Your task to perform on an android device: open the mobile data screen to see how much data has been used Image 0: 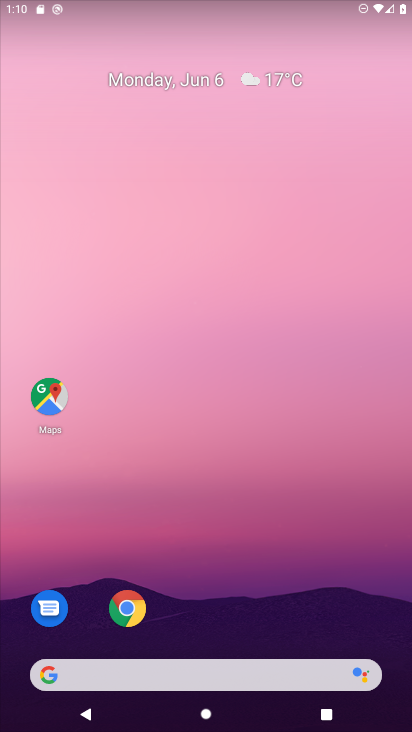
Step 0: drag from (245, 588) to (188, 113)
Your task to perform on an android device: open the mobile data screen to see how much data has been used Image 1: 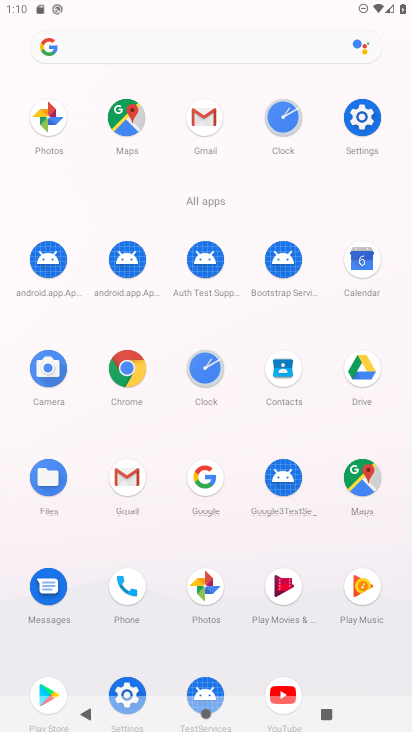
Step 1: click (366, 132)
Your task to perform on an android device: open the mobile data screen to see how much data has been used Image 2: 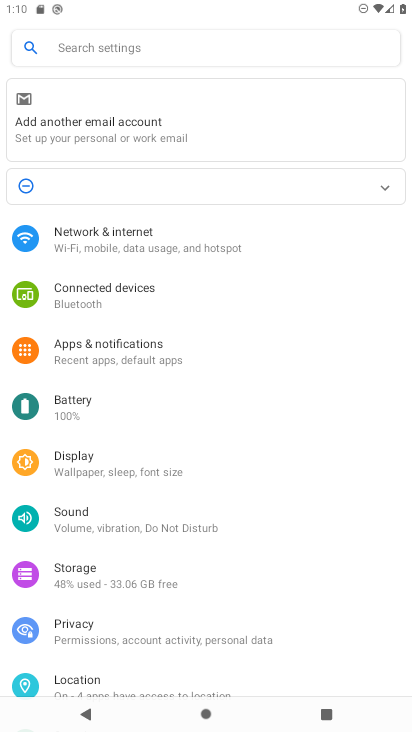
Step 2: click (288, 233)
Your task to perform on an android device: open the mobile data screen to see how much data has been used Image 3: 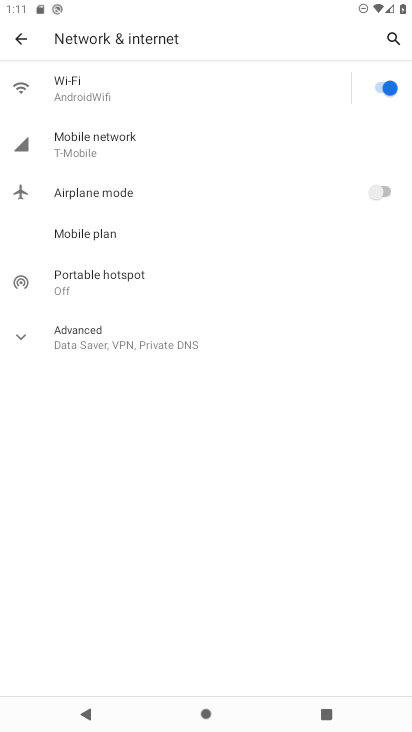
Step 3: click (275, 147)
Your task to perform on an android device: open the mobile data screen to see how much data has been used Image 4: 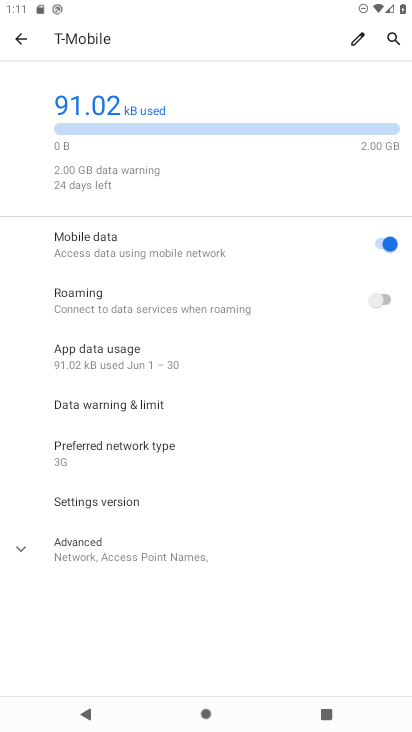
Step 4: task complete